Your task to perform on an android device: Open notification settings Image 0: 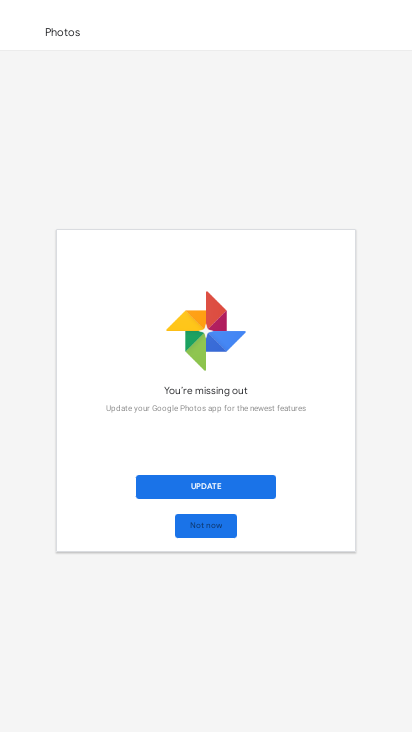
Step 0: press home button
Your task to perform on an android device: Open notification settings Image 1: 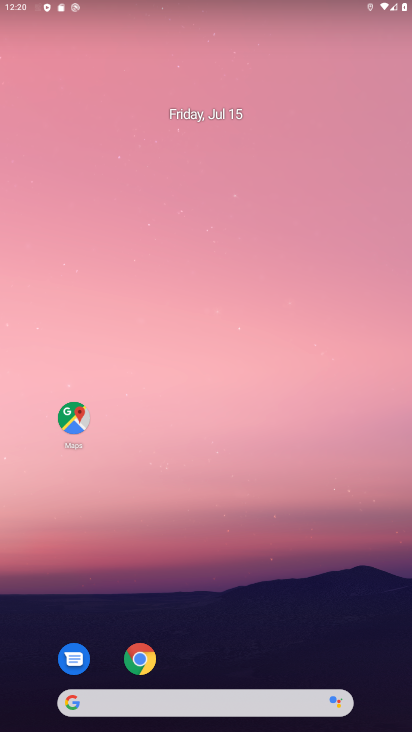
Step 1: drag from (230, 658) to (233, 117)
Your task to perform on an android device: Open notification settings Image 2: 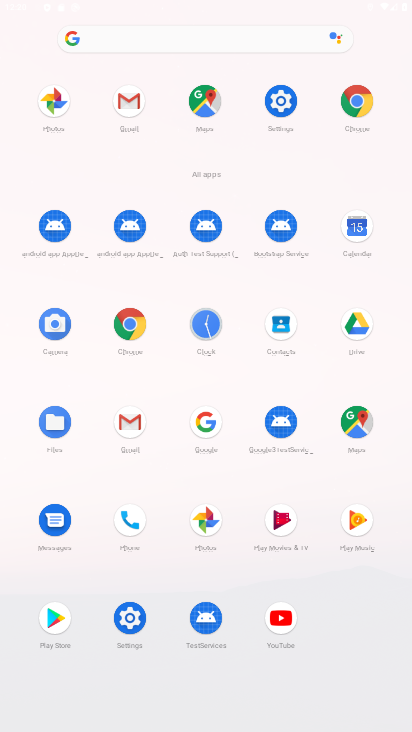
Step 2: click (283, 101)
Your task to perform on an android device: Open notification settings Image 3: 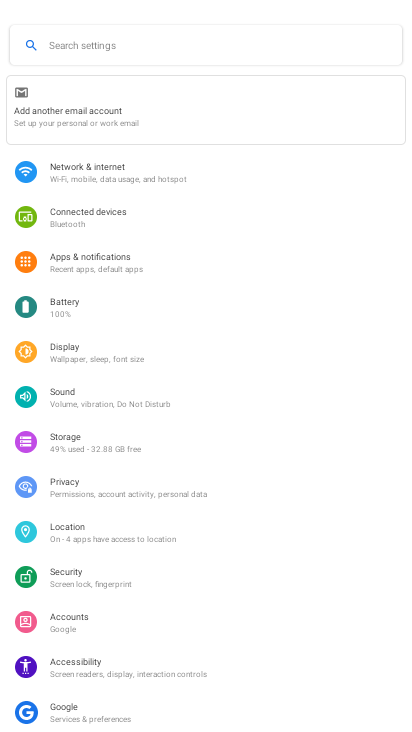
Step 3: click (109, 266)
Your task to perform on an android device: Open notification settings Image 4: 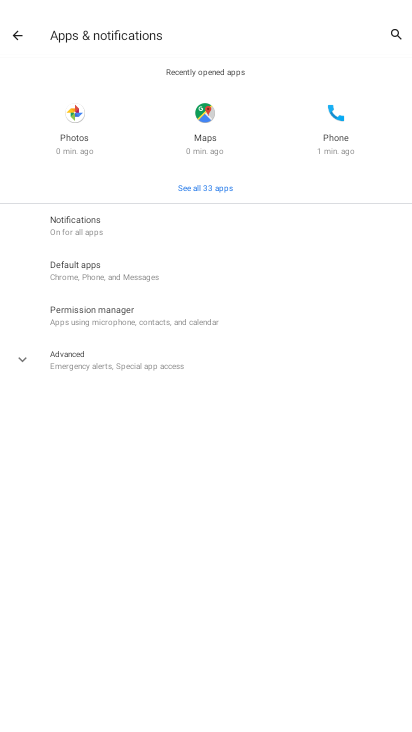
Step 4: click (87, 216)
Your task to perform on an android device: Open notification settings Image 5: 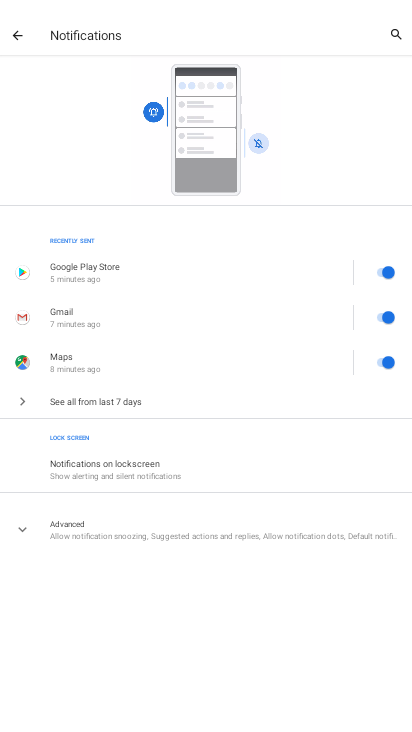
Step 5: task complete